Your task to perform on an android device: Go to Android settings Image 0: 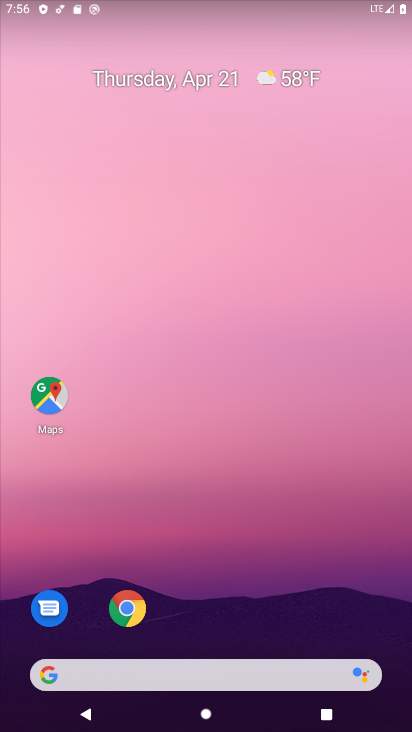
Step 0: drag from (283, 620) to (359, 94)
Your task to perform on an android device: Go to Android settings Image 1: 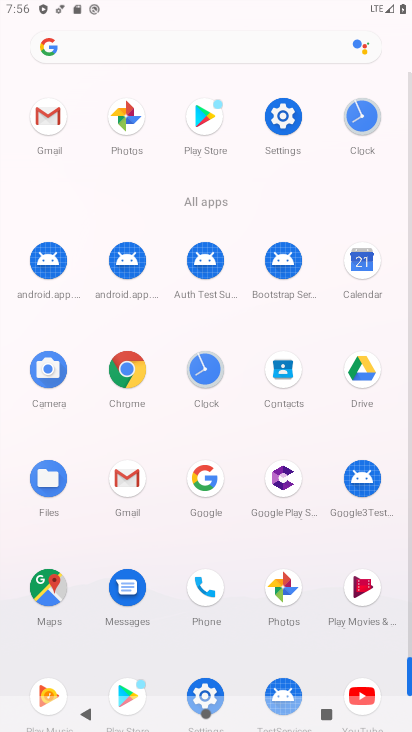
Step 1: click (285, 114)
Your task to perform on an android device: Go to Android settings Image 2: 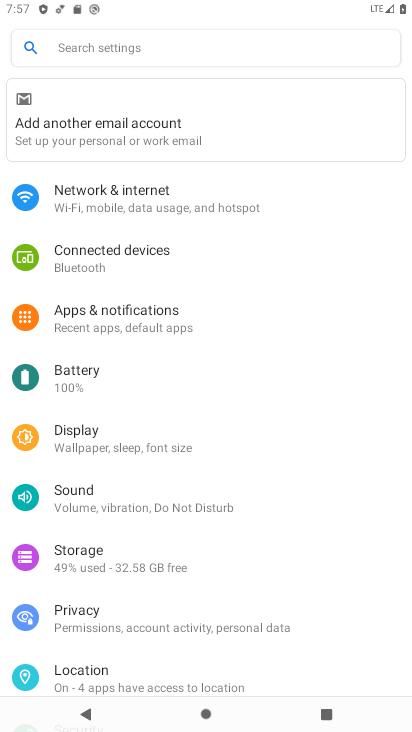
Step 2: task complete